Your task to perform on an android device: Go to network settings Image 0: 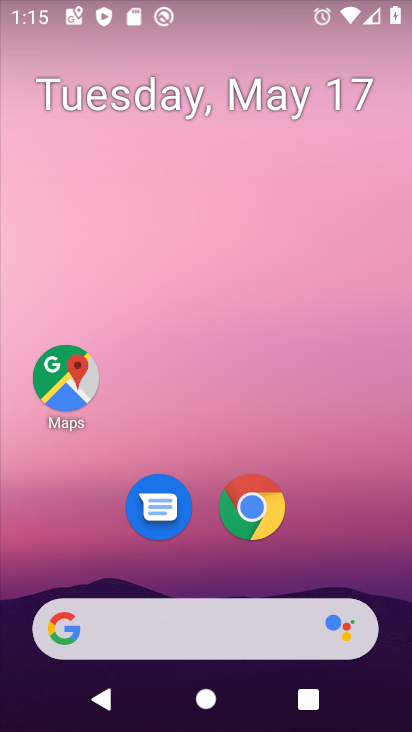
Step 0: drag from (307, 535) to (309, 234)
Your task to perform on an android device: Go to network settings Image 1: 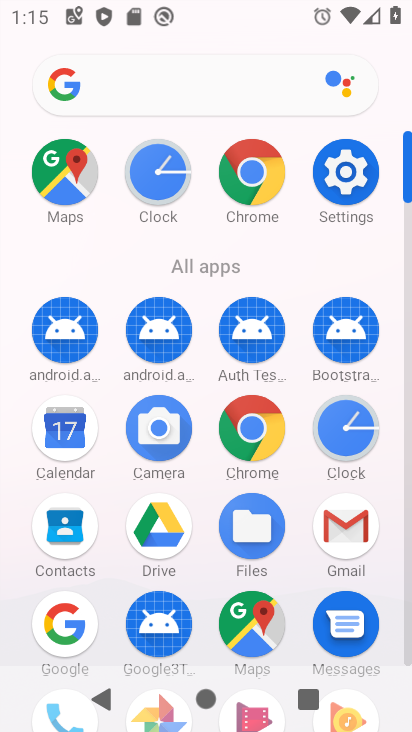
Step 1: click (342, 176)
Your task to perform on an android device: Go to network settings Image 2: 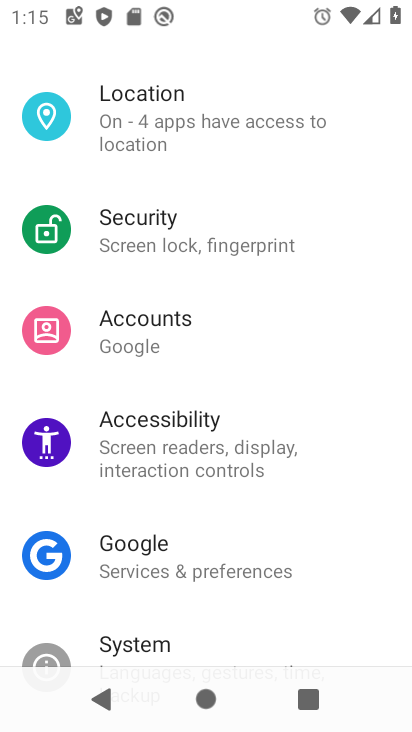
Step 2: drag from (194, 128) to (198, 607)
Your task to perform on an android device: Go to network settings Image 3: 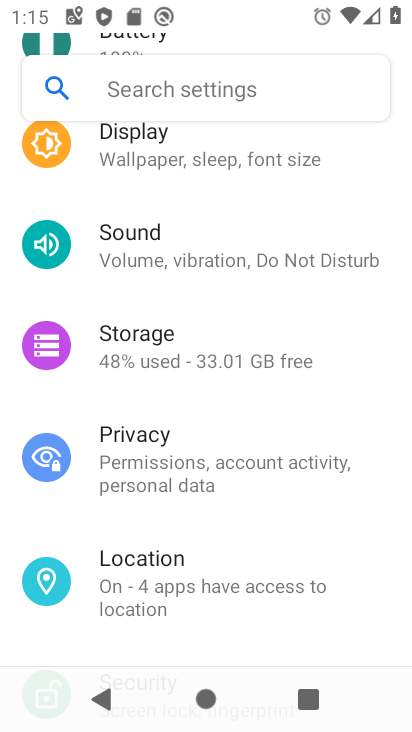
Step 3: drag from (178, 200) to (185, 595)
Your task to perform on an android device: Go to network settings Image 4: 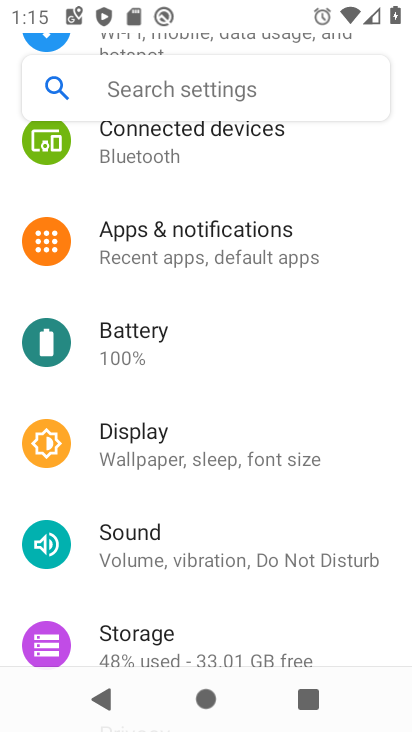
Step 4: drag from (173, 178) to (157, 563)
Your task to perform on an android device: Go to network settings Image 5: 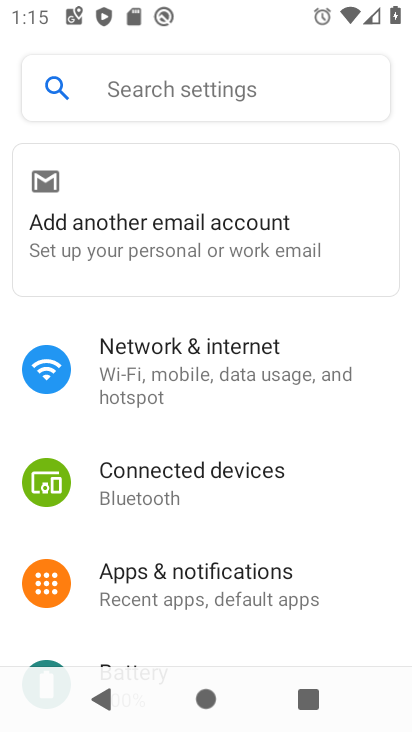
Step 5: click (152, 342)
Your task to perform on an android device: Go to network settings Image 6: 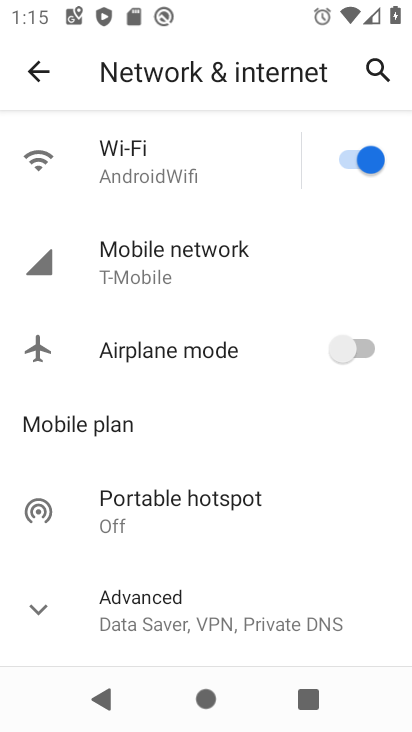
Step 6: task complete